Your task to perform on an android device: see sites visited before in the chrome app Image 0: 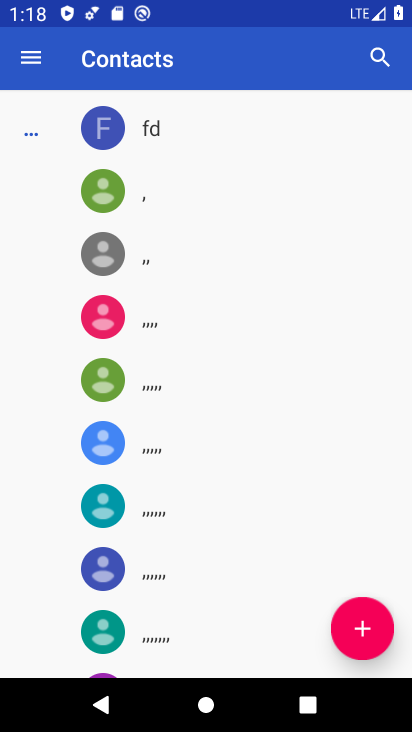
Step 0: press home button
Your task to perform on an android device: see sites visited before in the chrome app Image 1: 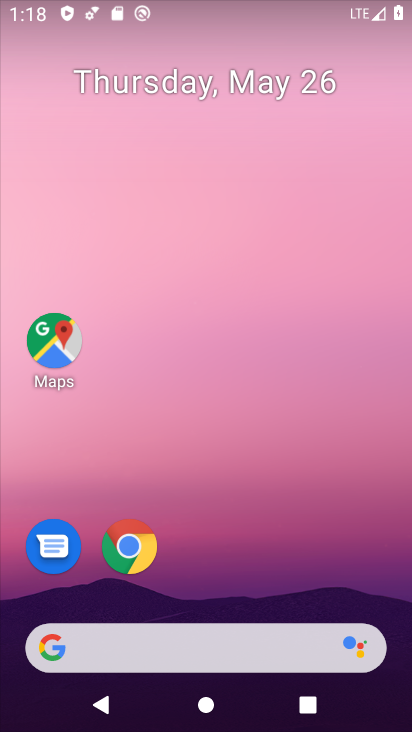
Step 1: click (148, 548)
Your task to perform on an android device: see sites visited before in the chrome app Image 2: 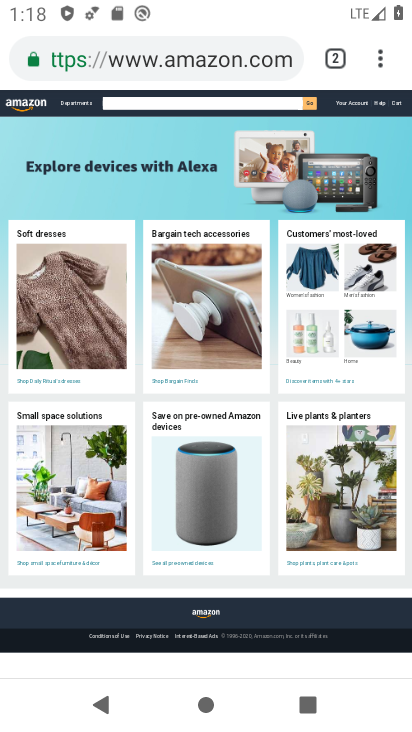
Step 2: click (374, 52)
Your task to perform on an android device: see sites visited before in the chrome app Image 3: 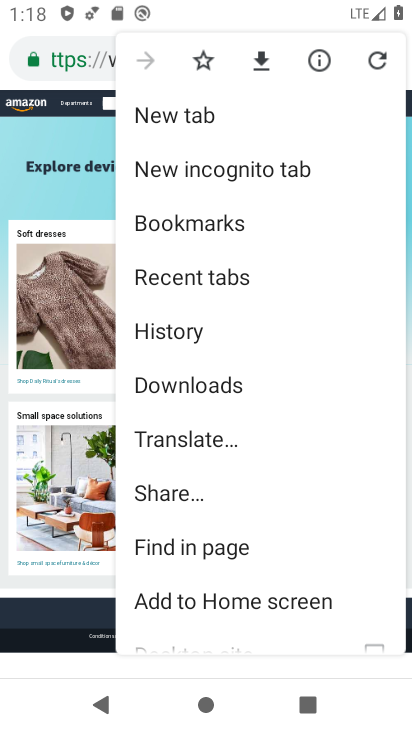
Step 3: click (189, 338)
Your task to perform on an android device: see sites visited before in the chrome app Image 4: 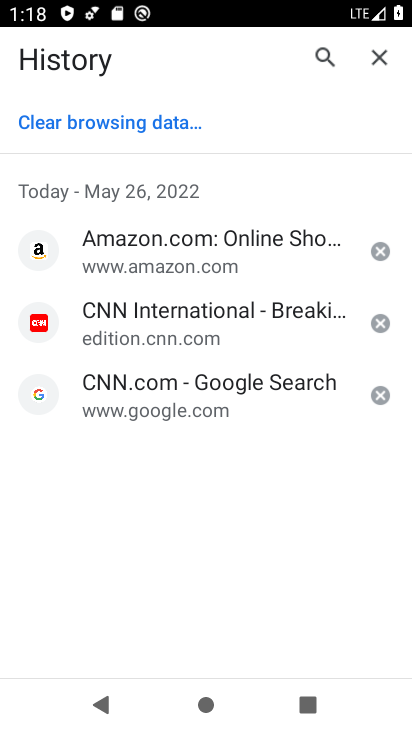
Step 4: click (182, 258)
Your task to perform on an android device: see sites visited before in the chrome app Image 5: 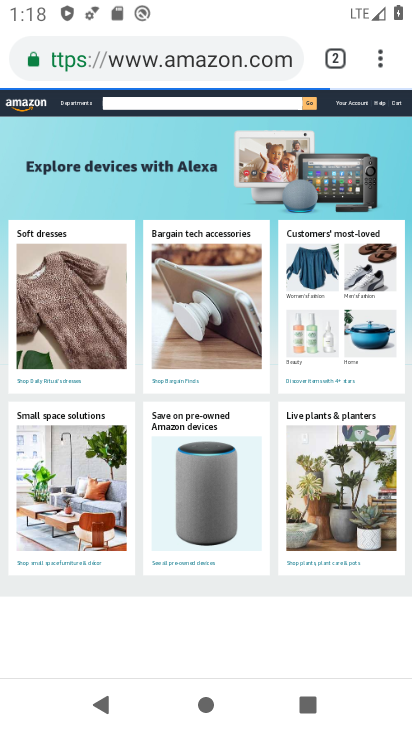
Step 5: task complete